Your task to perform on an android device: all mails in gmail Image 0: 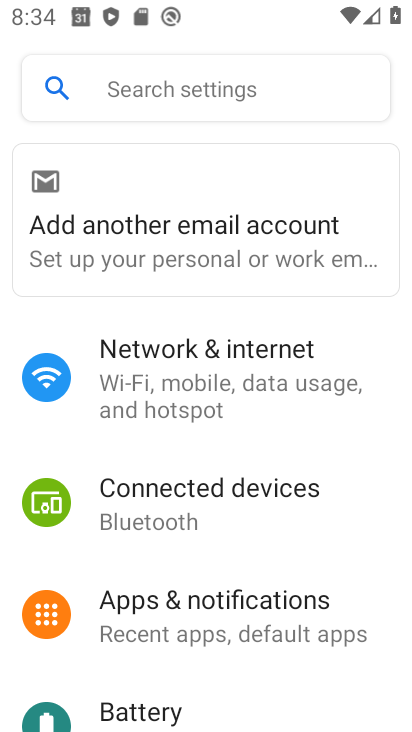
Step 0: press home button
Your task to perform on an android device: all mails in gmail Image 1: 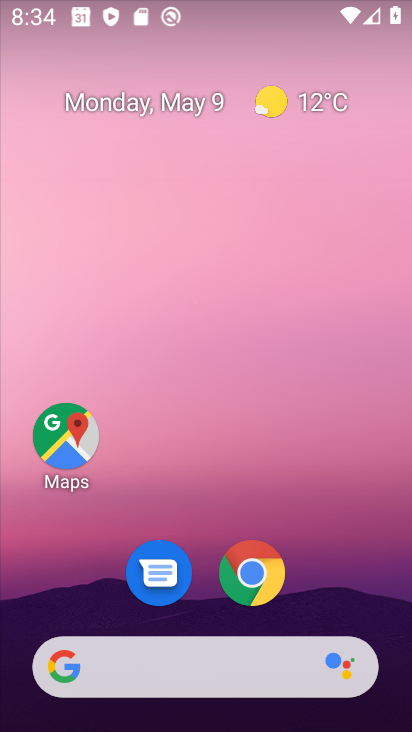
Step 1: drag from (137, 714) to (324, 61)
Your task to perform on an android device: all mails in gmail Image 2: 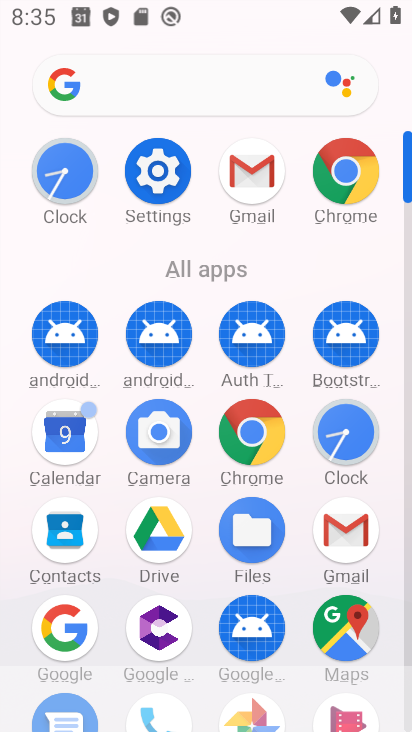
Step 2: click (235, 189)
Your task to perform on an android device: all mails in gmail Image 3: 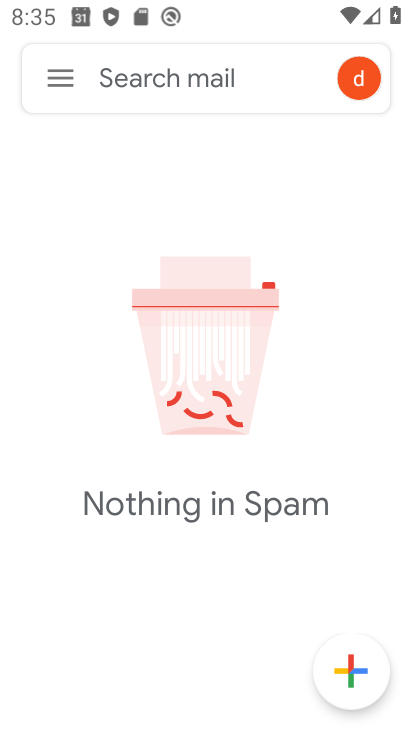
Step 3: click (53, 77)
Your task to perform on an android device: all mails in gmail Image 4: 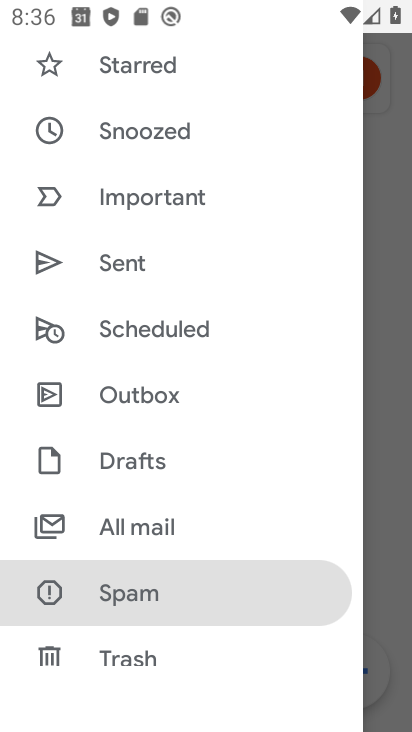
Step 4: click (185, 532)
Your task to perform on an android device: all mails in gmail Image 5: 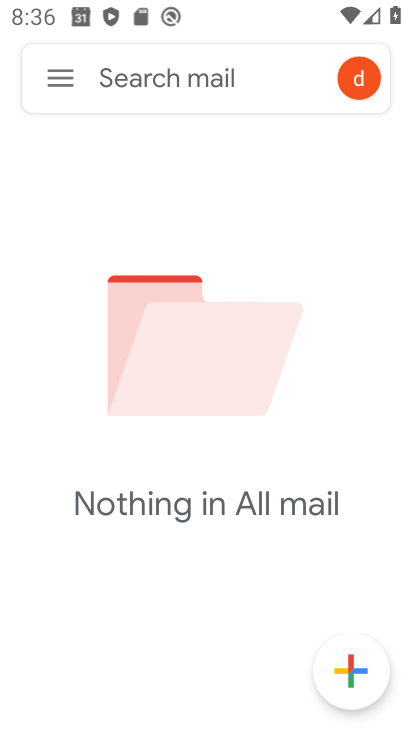
Step 5: task complete